Your task to perform on an android device: Open Google Chrome and open the bookmarks view Image 0: 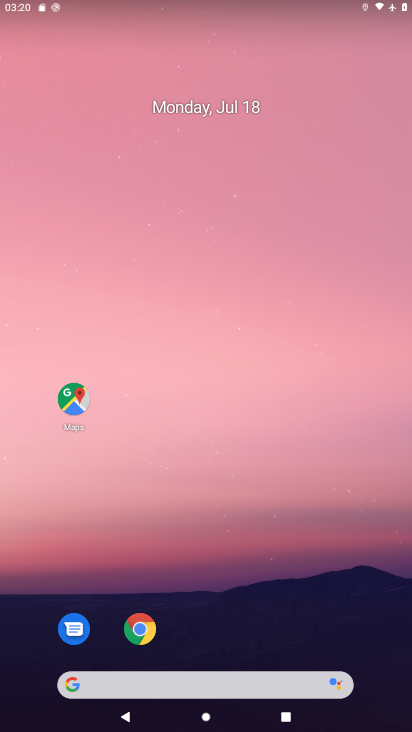
Step 0: drag from (305, 329) to (322, 134)
Your task to perform on an android device: Open Google Chrome and open the bookmarks view Image 1: 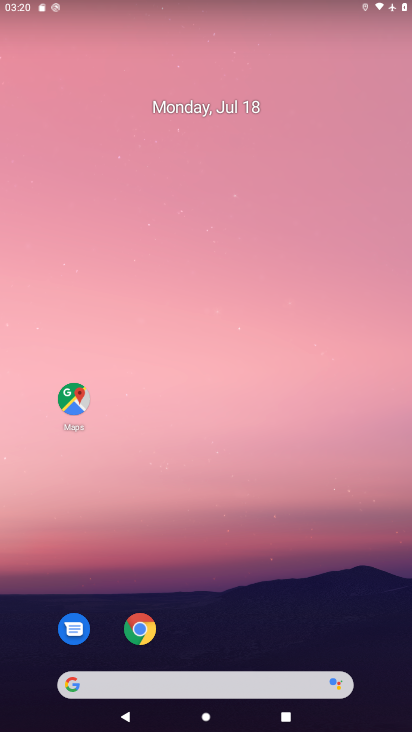
Step 1: drag from (348, 604) to (385, 82)
Your task to perform on an android device: Open Google Chrome and open the bookmarks view Image 2: 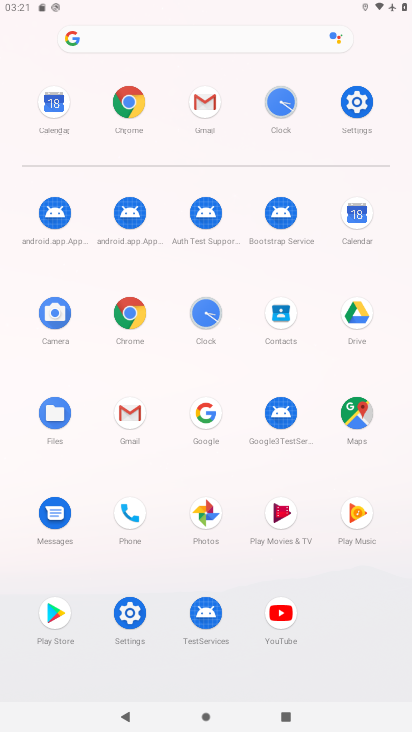
Step 2: click (133, 313)
Your task to perform on an android device: Open Google Chrome and open the bookmarks view Image 3: 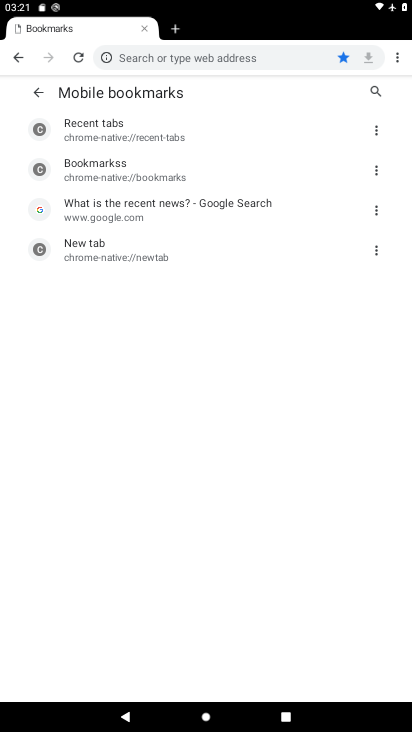
Step 3: task complete